Your task to perform on an android device: Show me the alarms in the clock app Image 0: 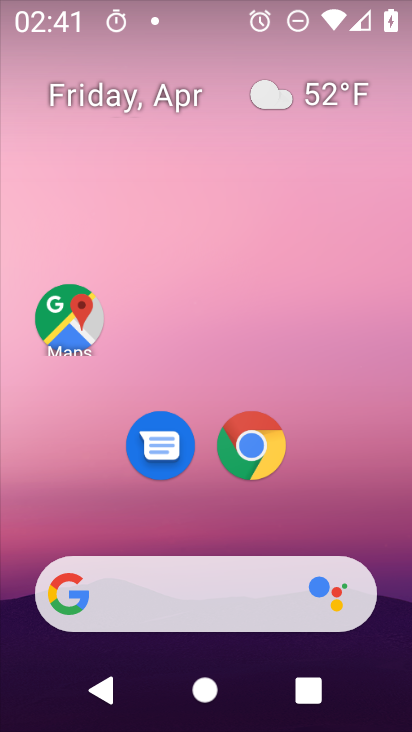
Step 0: drag from (360, 518) to (369, 154)
Your task to perform on an android device: Show me the alarms in the clock app Image 1: 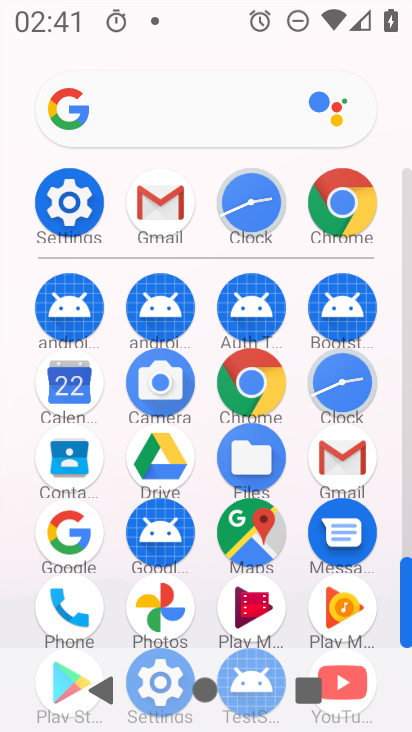
Step 1: click (341, 386)
Your task to perform on an android device: Show me the alarms in the clock app Image 2: 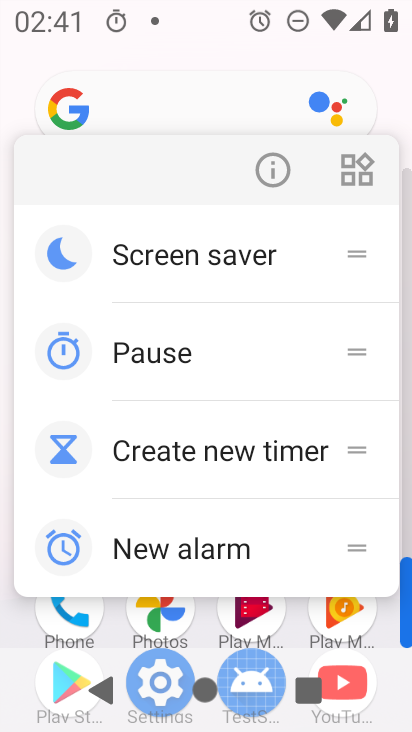
Step 2: click (407, 402)
Your task to perform on an android device: Show me the alarms in the clock app Image 3: 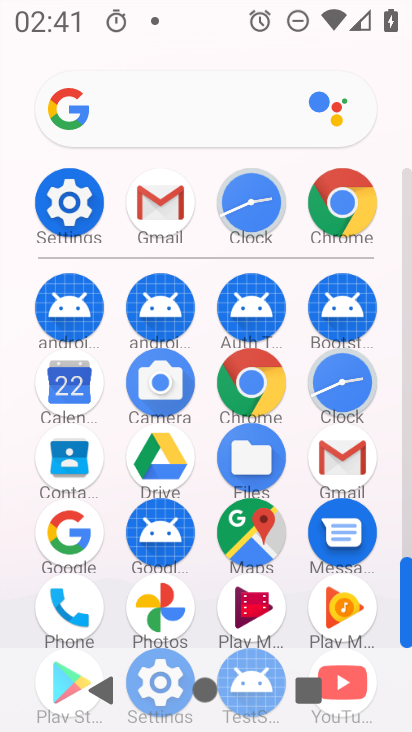
Step 3: click (344, 392)
Your task to perform on an android device: Show me the alarms in the clock app Image 4: 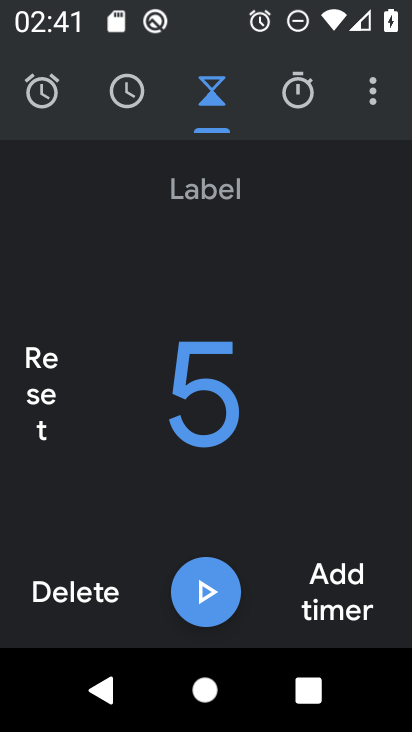
Step 4: click (47, 97)
Your task to perform on an android device: Show me the alarms in the clock app Image 5: 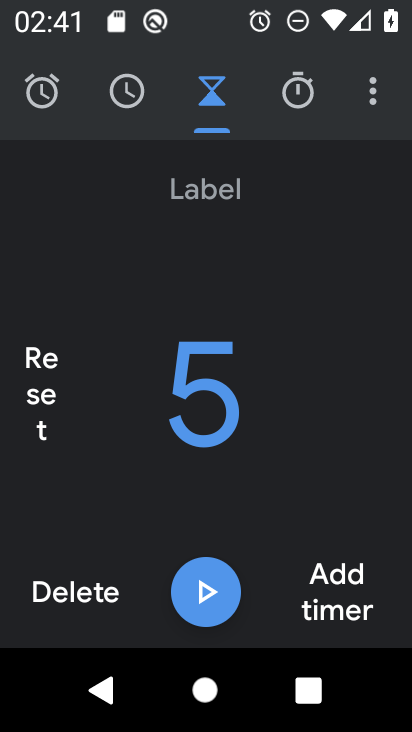
Step 5: click (49, 75)
Your task to perform on an android device: Show me the alarms in the clock app Image 6: 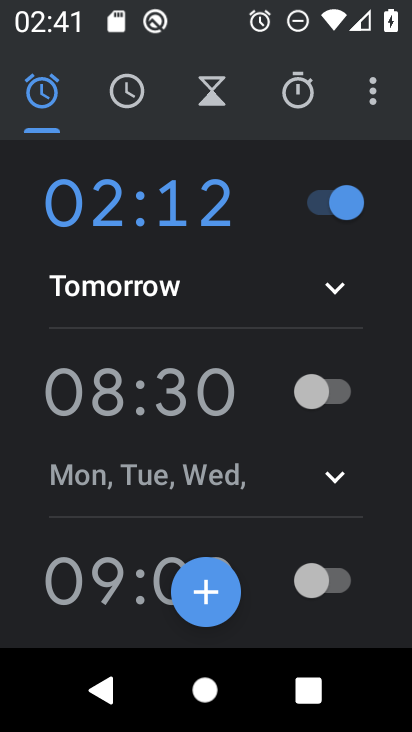
Step 6: task complete